Your task to perform on an android device: Play the last video I watched on Youtube Image 0: 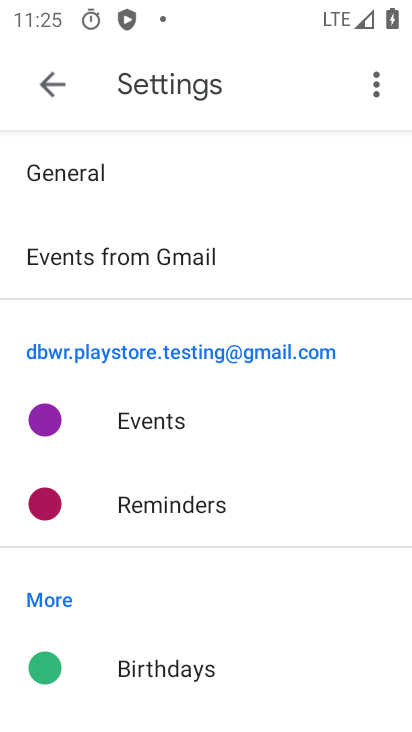
Step 0: press home button
Your task to perform on an android device: Play the last video I watched on Youtube Image 1: 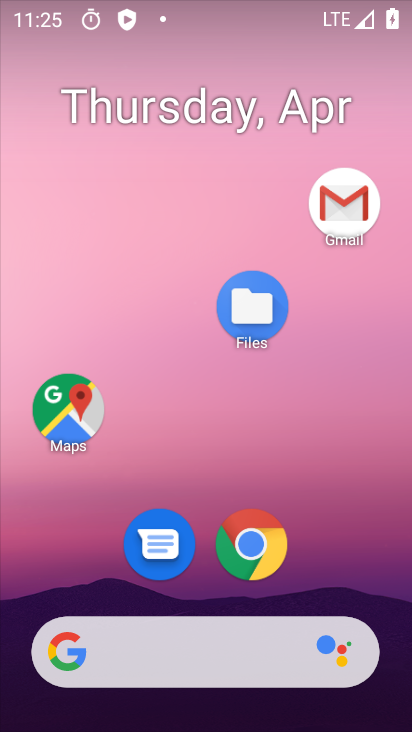
Step 1: drag from (191, 286) to (207, 86)
Your task to perform on an android device: Play the last video I watched on Youtube Image 2: 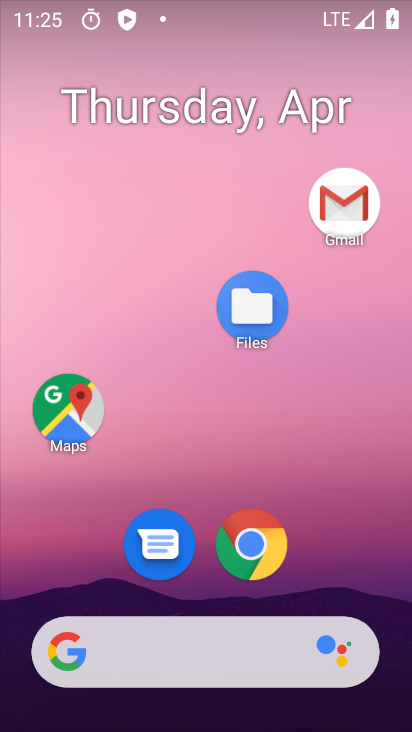
Step 2: drag from (159, 242) to (163, 44)
Your task to perform on an android device: Play the last video I watched on Youtube Image 3: 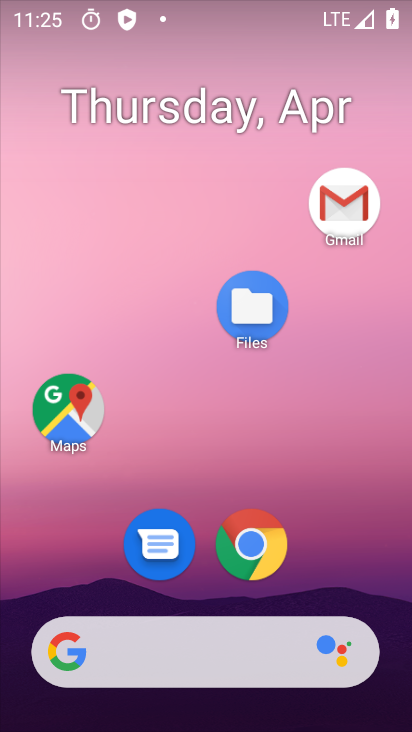
Step 3: drag from (198, 301) to (198, 48)
Your task to perform on an android device: Play the last video I watched on Youtube Image 4: 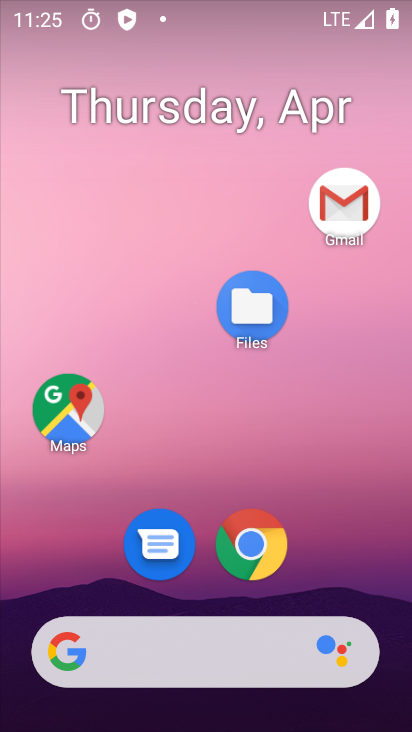
Step 4: drag from (191, 499) to (204, 0)
Your task to perform on an android device: Play the last video I watched on Youtube Image 5: 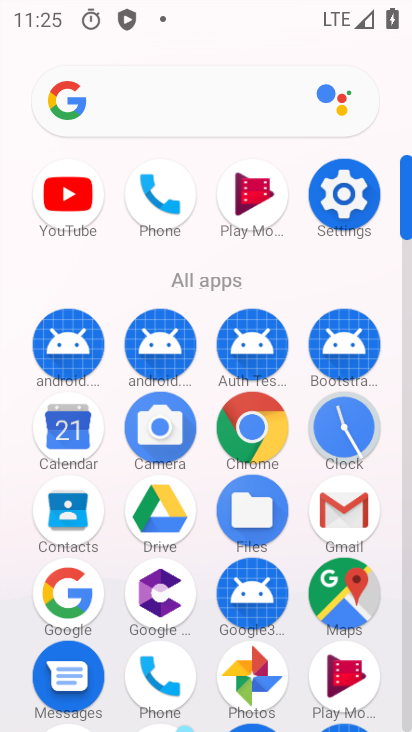
Step 5: click (61, 219)
Your task to perform on an android device: Play the last video I watched on Youtube Image 6: 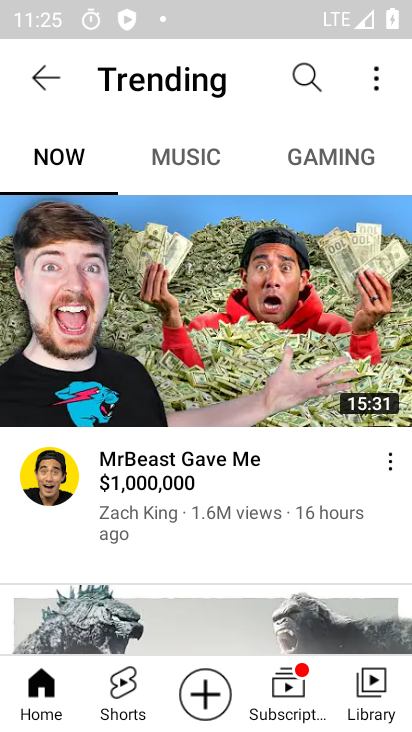
Step 6: click (357, 697)
Your task to perform on an android device: Play the last video I watched on Youtube Image 7: 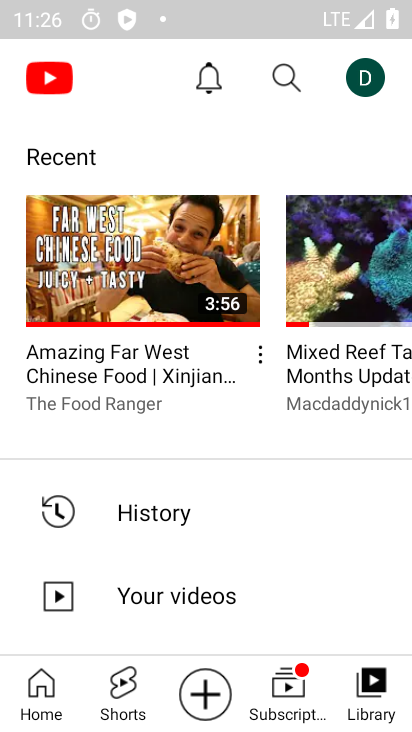
Step 7: click (147, 290)
Your task to perform on an android device: Play the last video I watched on Youtube Image 8: 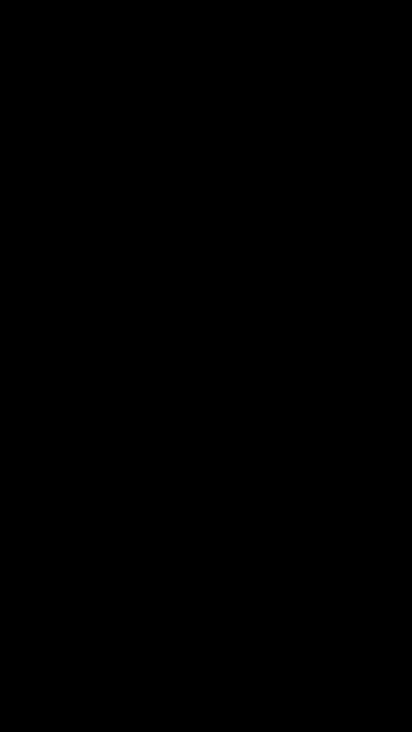
Step 8: task complete